Your task to perform on an android device: Open display settings Image 0: 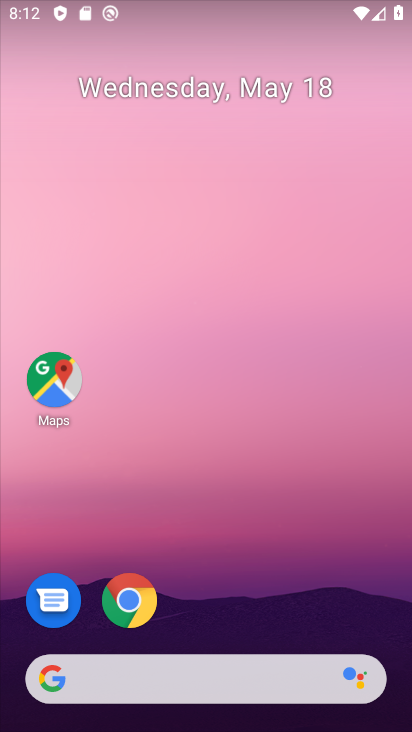
Step 0: drag from (59, 620) to (323, 106)
Your task to perform on an android device: Open display settings Image 1: 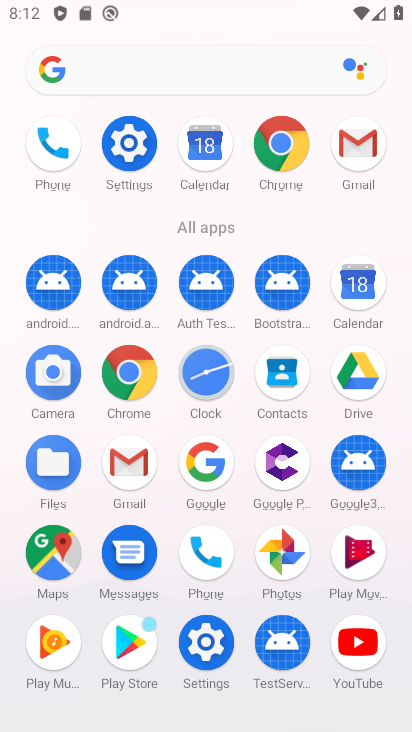
Step 1: click (133, 139)
Your task to perform on an android device: Open display settings Image 2: 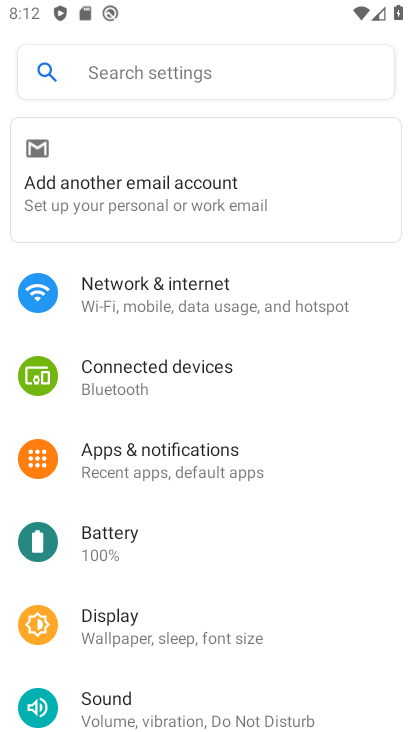
Step 2: click (112, 626)
Your task to perform on an android device: Open display settings Image 3: 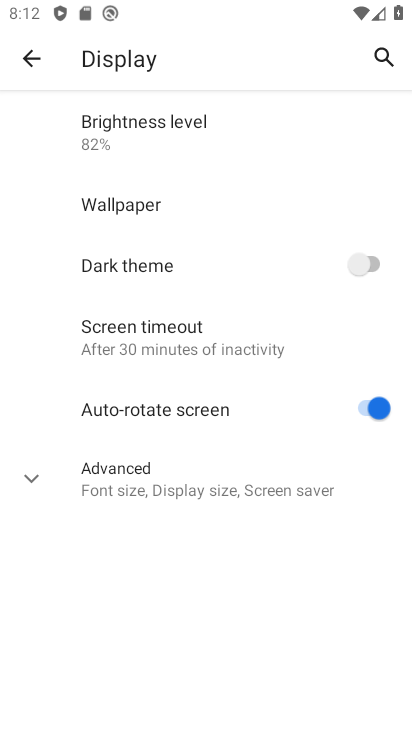
Step 3: task complete